Your task to perform on an android device: check storage Image 0: 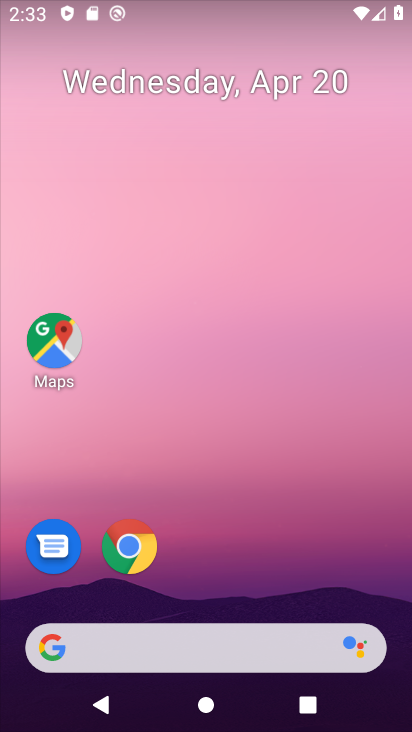
Step 0: drag from (246, 614) to (358, 35)
Your task to perform on an android device: check storage Image 1: 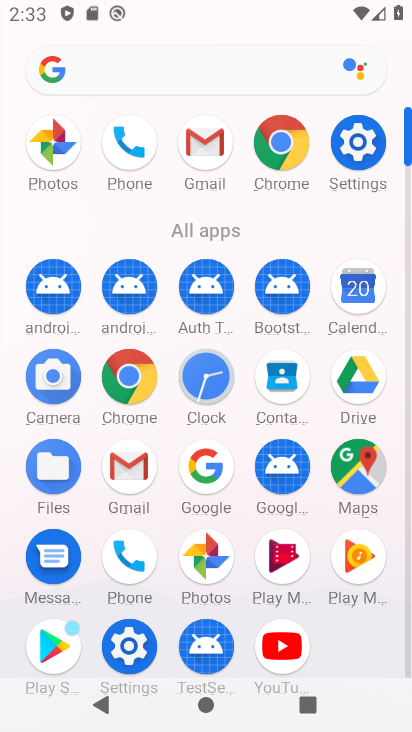
Step 1: click (357, 151)
Your task to perform on an android device: check storage Image 2: 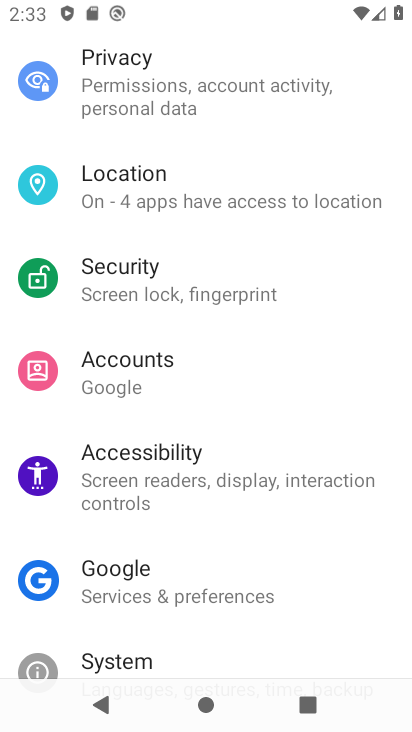
Step 2: drag from (260, 138) to (181, 573)
Your task to perform on an android device: check storage Image 3: 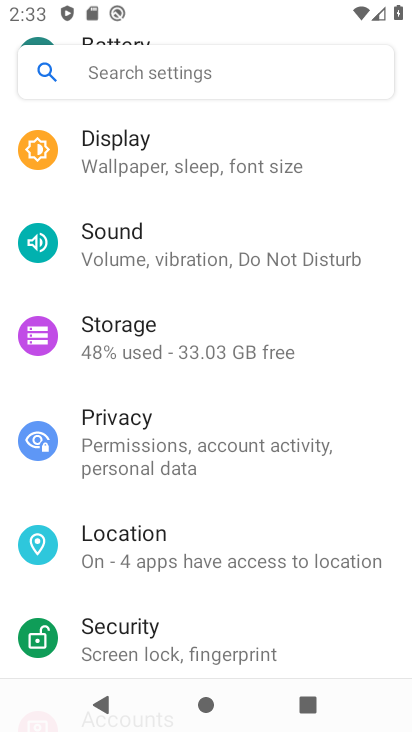
Step 3: click (219, 352)
Your task to perform on an android device: check storage Image 4: 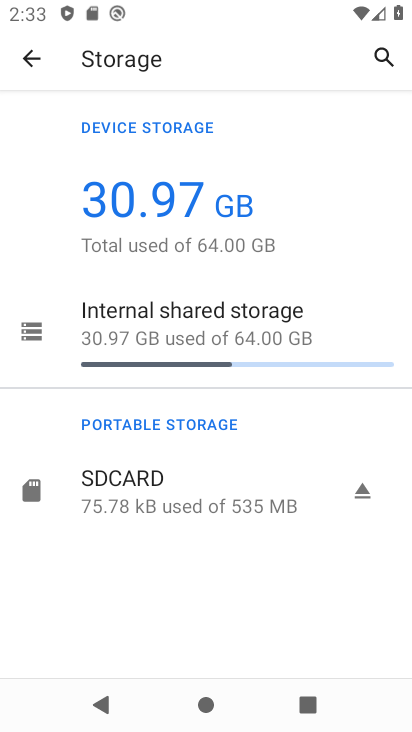
Step 4: click (226, 335)
Your task to perform on an android device: check storage Image 5: 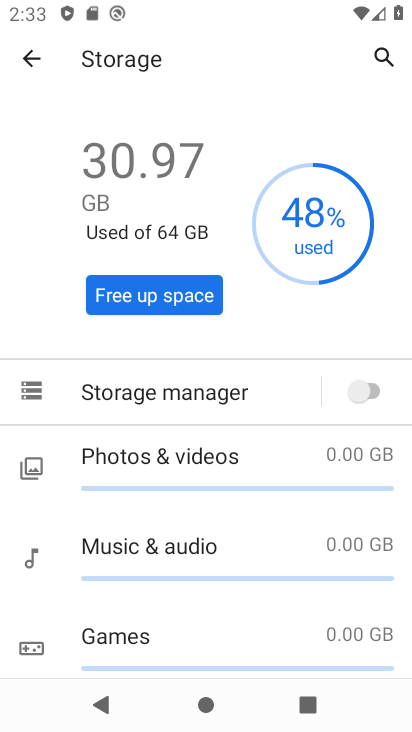
Step 5: task complete